Your task to perform on an android device: change your default location settings in chrome Image 0: 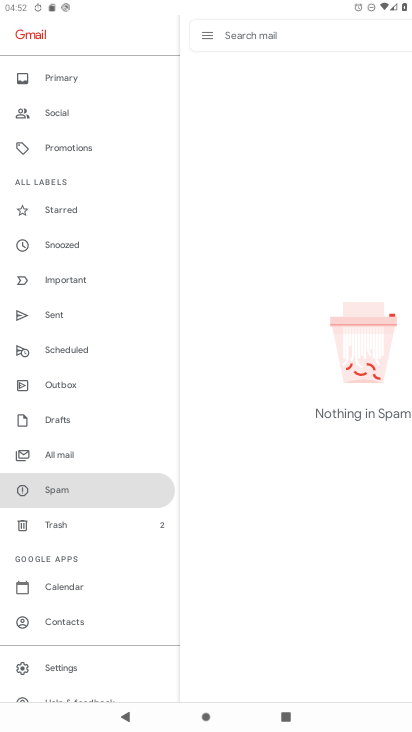
Step 0: press home button
Your task to perform on an android device: change your default location settings in chrome Image 1: 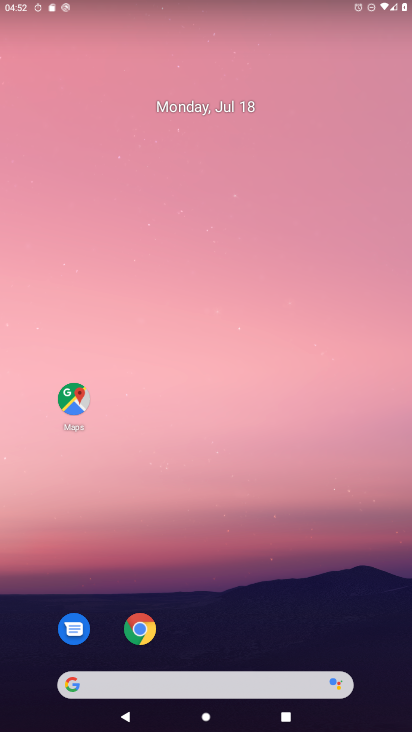
Step 1: click (142, 630)
Your task to perform on an android device: change your default location settings in chrome Image 2: 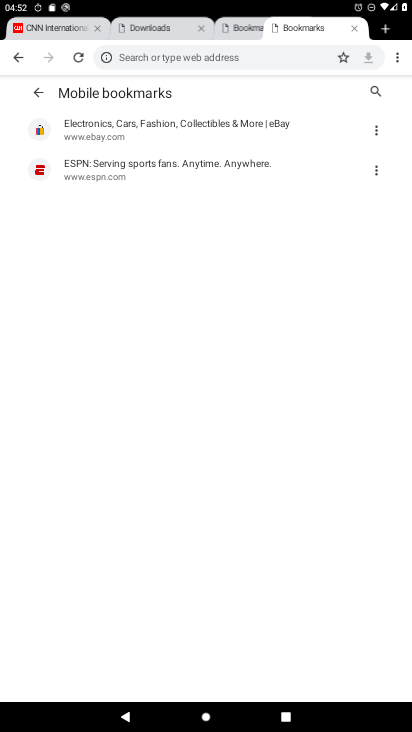
Step 2: click (398, 57)
Your task to perform on an android device: change your default location settings in chrome Image 3: 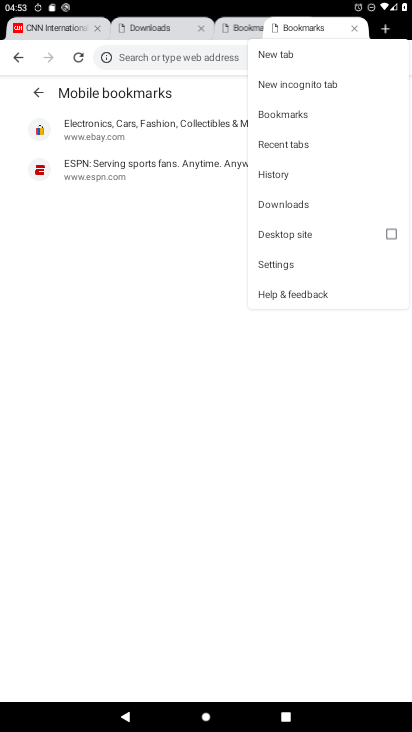
Step 3: click (282, 263)
Your task to perform on an android device: change your default location settings in chrome Image 4: 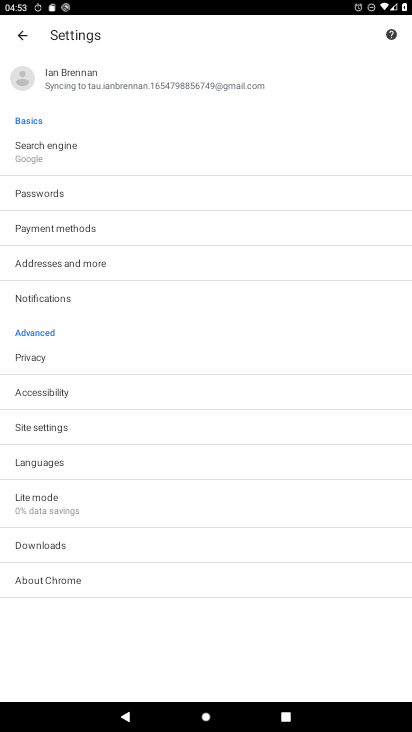
Step 4: click (45, 426)
Your task to perform on an android device: change your default location settings in chrome Image 5: 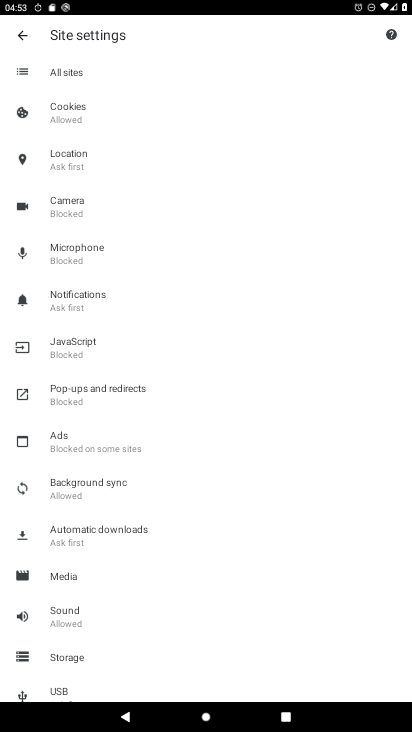
Step 5: click (67, 160)
Your task to perform on an android device: change your default location settings in chrome Image 6: 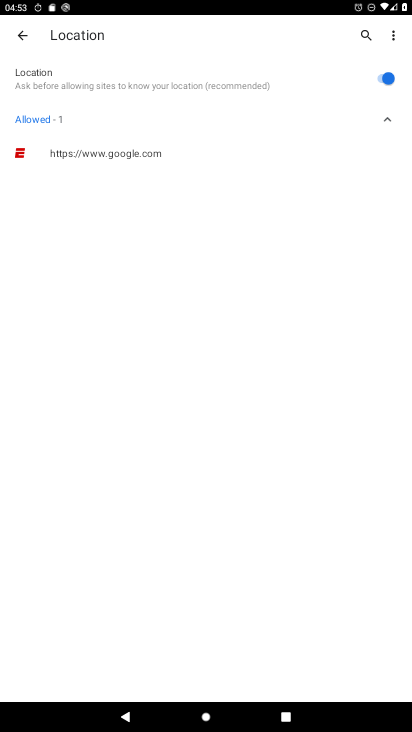
Step 6: click (386, 81)
Your task to perform on an android device: change your default location settings in chrome Image 7: 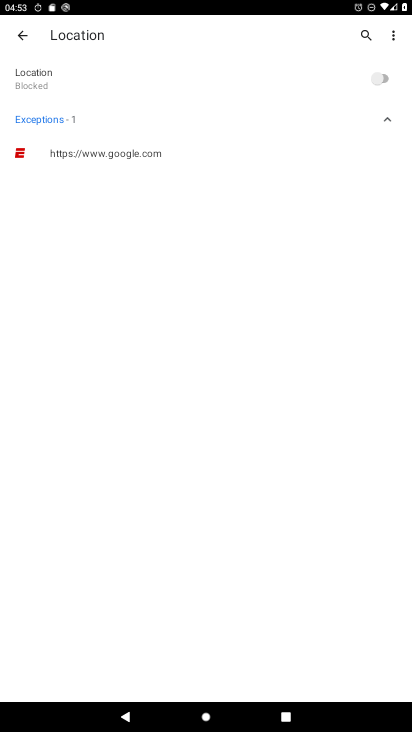
Step 7: task complete